Your task to perform on an android device: set an alarm Image 0: 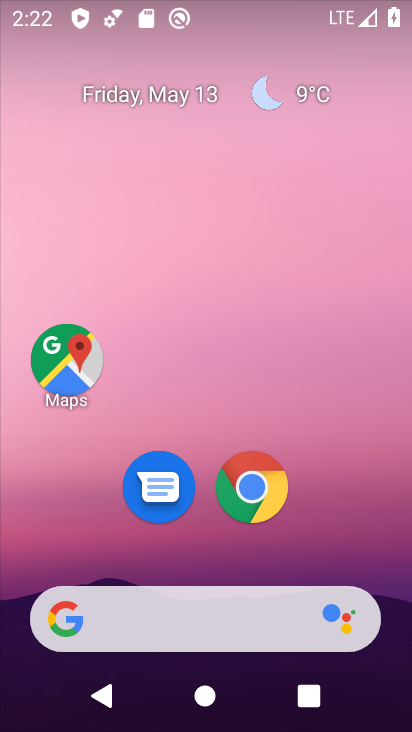
Step 0: drag from (203, 508) to (227, 116)
Your task to perform on an android device: set an alarm Image 1: 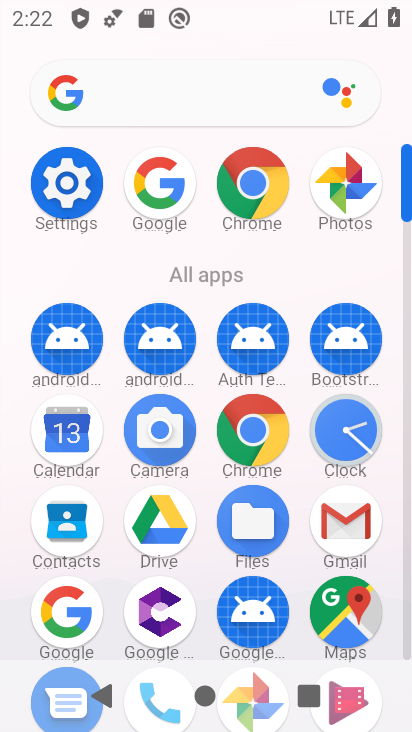
Step 1: click (345, 434)
Your task to perform on an android device: set an alarm Image 2: 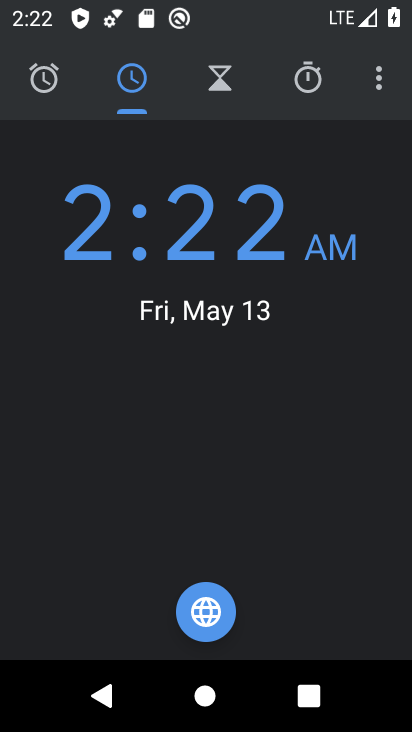
Step 2: click (44, 73)
Your task to perform on an android device: set an alarm Image 3: 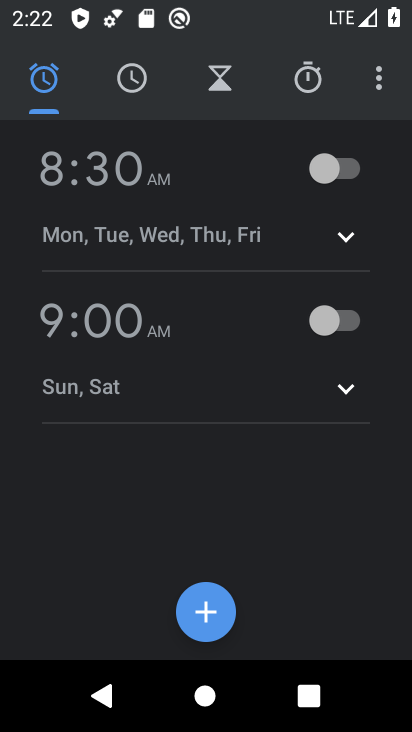
Step 3: click (320, 167)
Your task to perform on an android device: set an alarm Image 4: 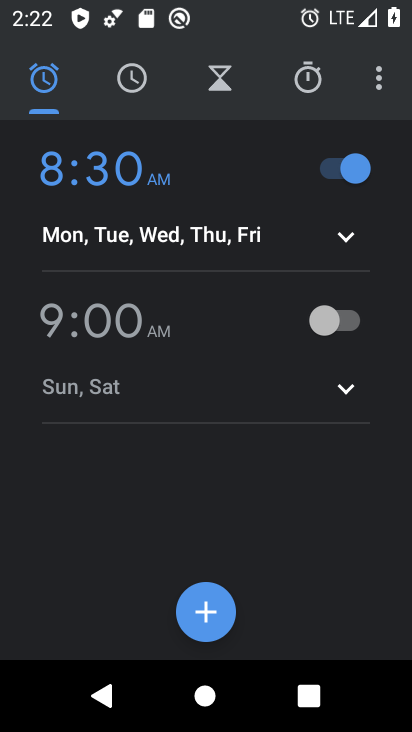
Step 4: task complete